Your task to perform on an android device: Is it going to rain this weekend? Image 0: 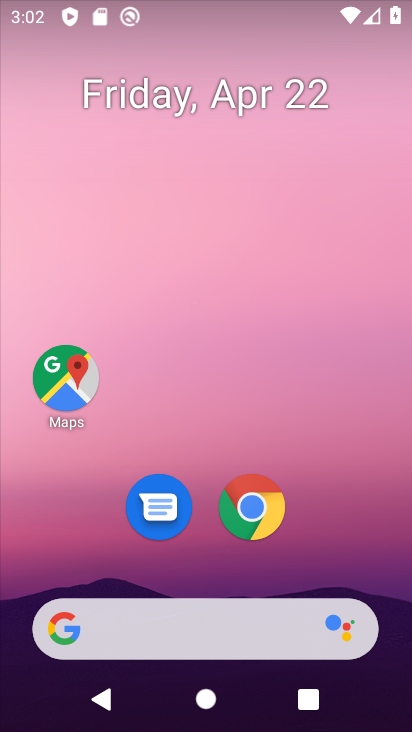
Step 0: press home button
Your task to perform on an android device: Is it going to rain this weekend? Image 1: 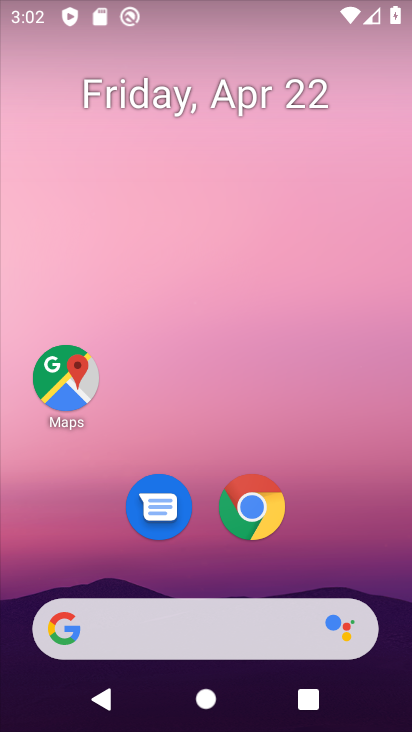
Step 1: drag from (12, 209) to (408, 240)
Your task to perform on an android device: Is it going to rain this weekend? Image 2: 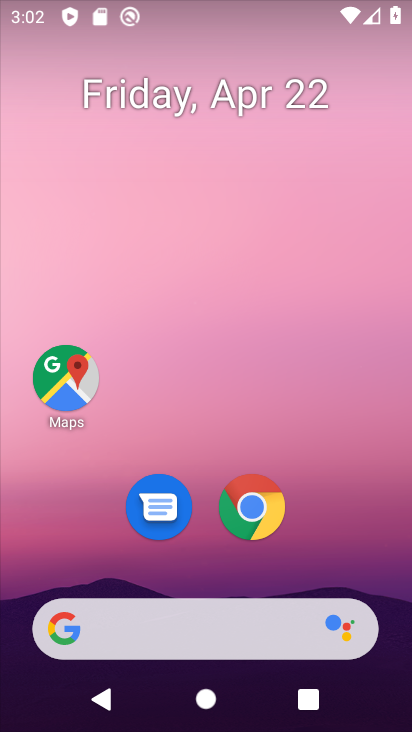
Step 2: drag from (1, 207) to (411, 236)
Your task to perform on an android device: Is it going to rain this weekend? Image 3: 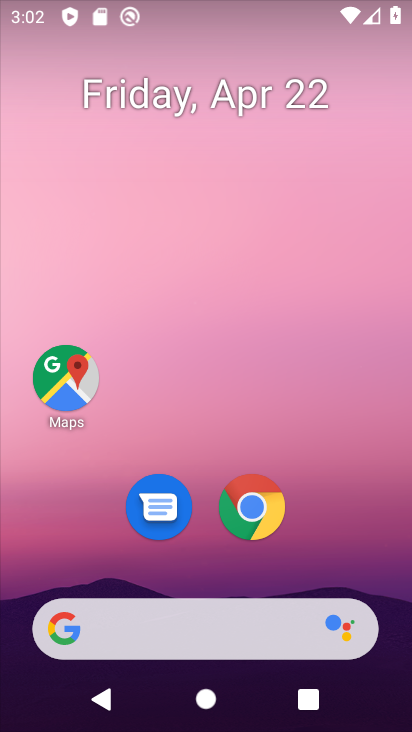
Step 3: drag from (0, 229) to (405, 255)
Your task to perform on an android device: Is it going to rain this weekend? Image 4: 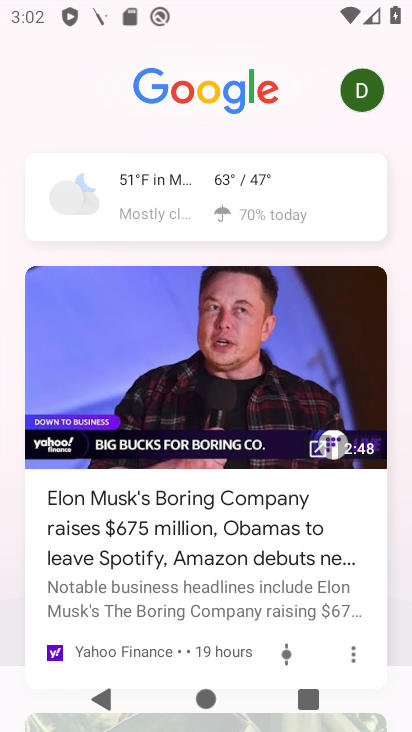
Step 4: click (227, 175)
Your task to perform on an android device: Is it going to rain this weekend? Image 5: 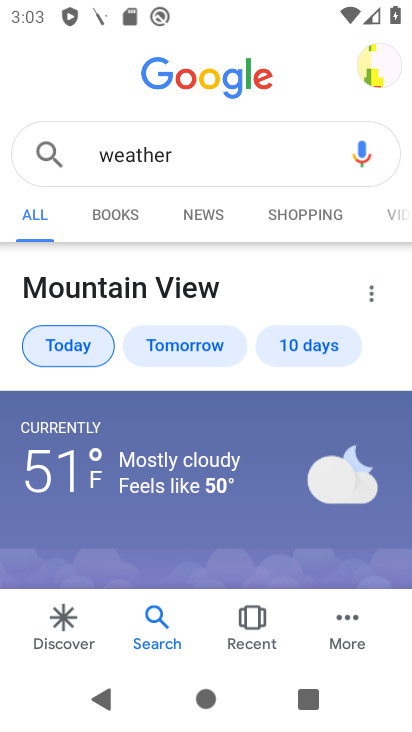
Step 5: click (304, 344)
Your task to perform on an android device: Is it going to rain this weekend? Image 6: 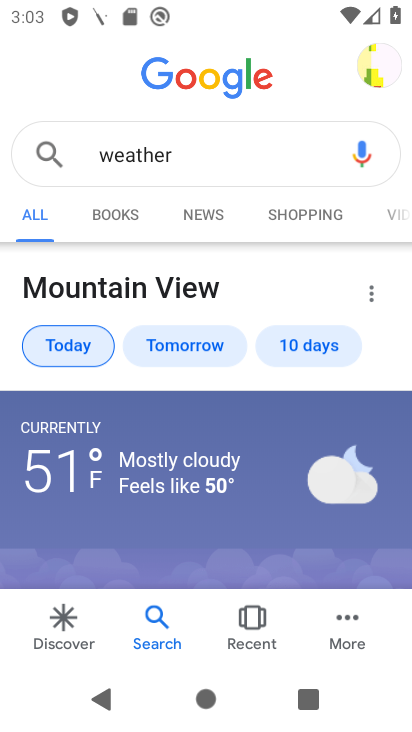
Step 6: click (311, 342)
Your task to perform on an android device: Is it going to rain this weekend? Image 7: 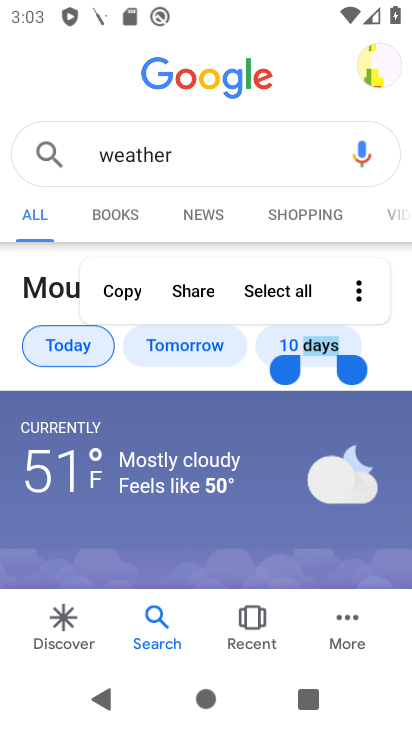
Step 7: click (312, 353)
Your task to perform on an android device: Is it going to rain this weekend? Image 8: 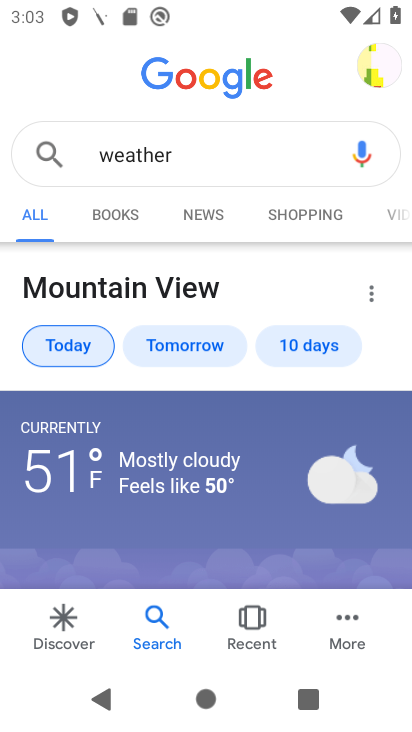
Step 8: click (305, 337)
Your task to perform on an android device: Is it going to rain this weekend? Image 9: 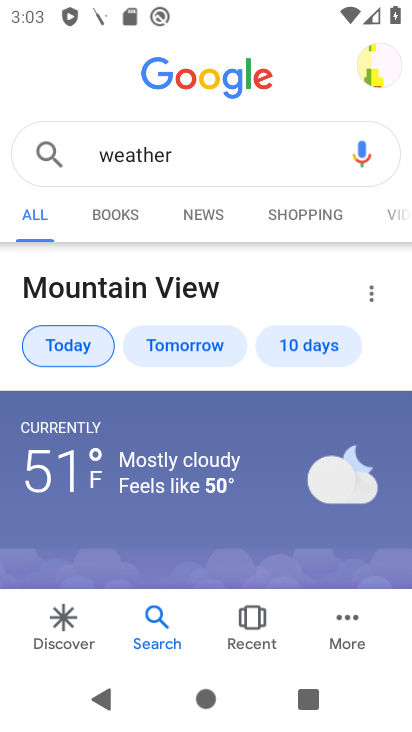
Step 9: click (303, 347)
Your task to perform on an android device: Is it going to rain this weekend? Image 10: 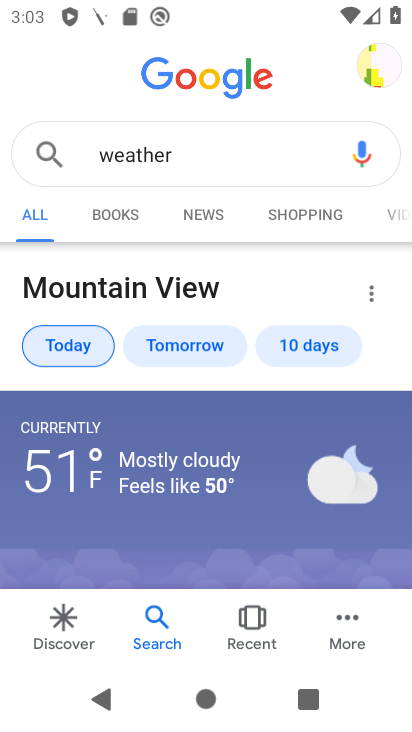
Step 10: click (303, 347)
Your task to perform on an android device: Is it going to rain this weekend? Image 11: 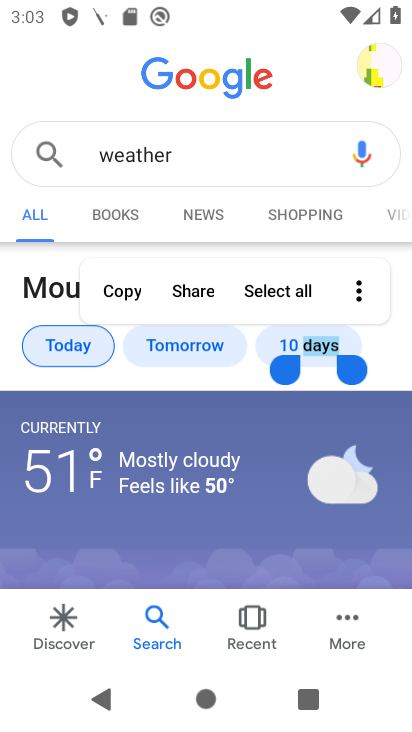
Step 11: click (296, 357)
Your task to perform on an android device: Is it going to rain this weekend? Image 12: 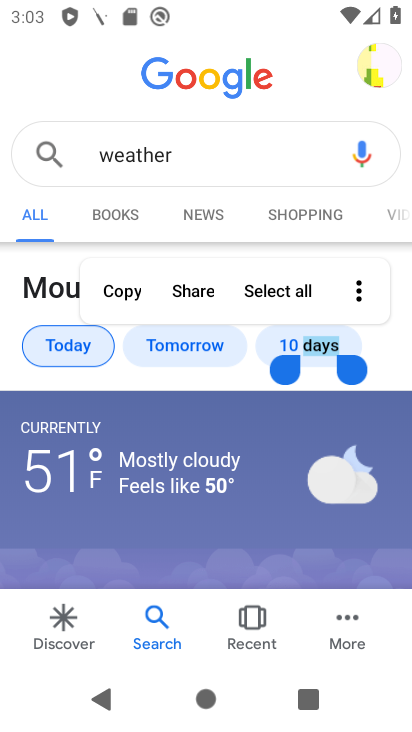
Step 12: click (307, 353)
Your task to perform on an android device: Is it going to rain this weekend? Image 13: 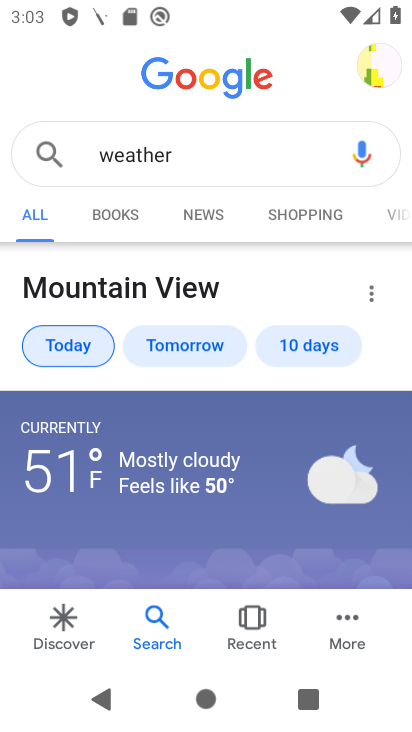
Step 13: task complete